Your task to perform on an android device: refresh tabs in the chrome app Image 0: 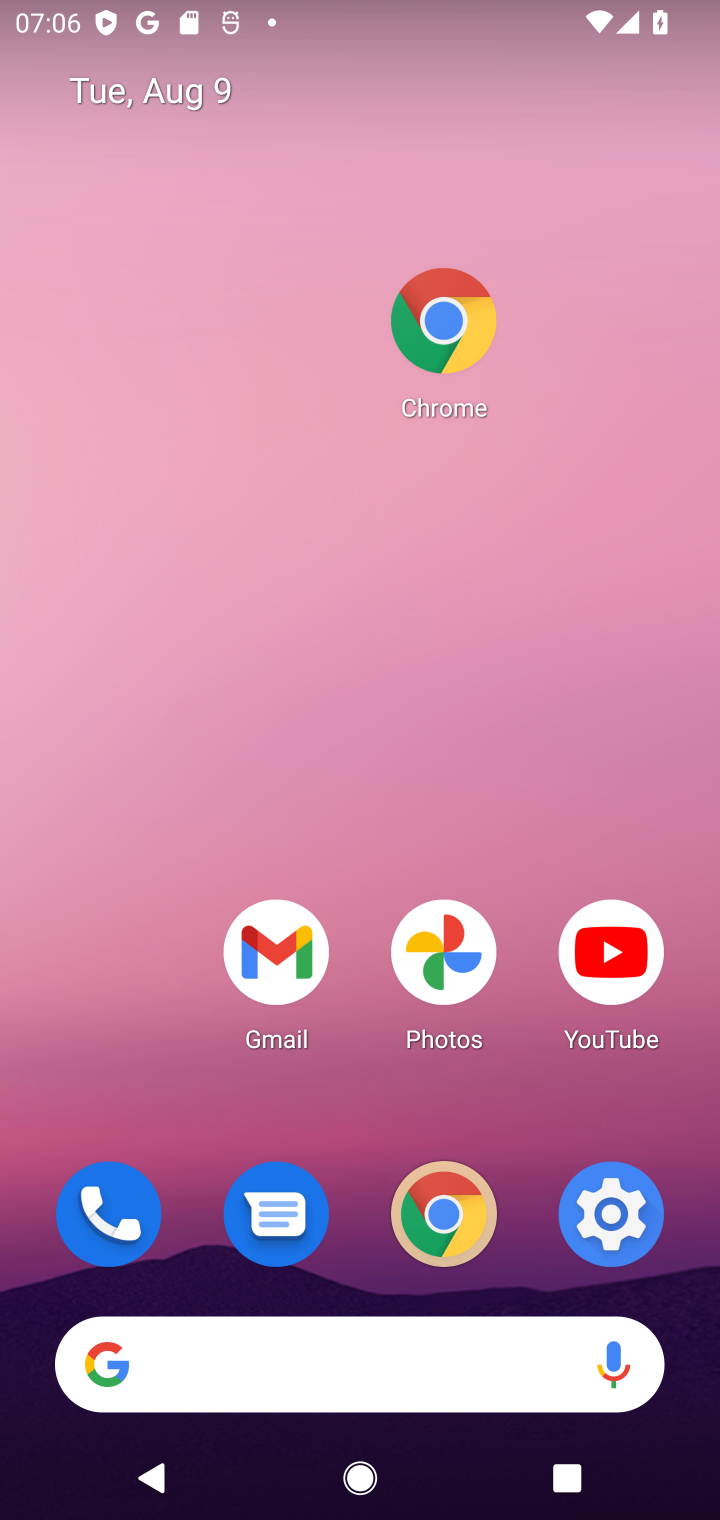
Step 0: press home button
Your task to perform on an android device: refresh tabs in the chrome app Image 1: 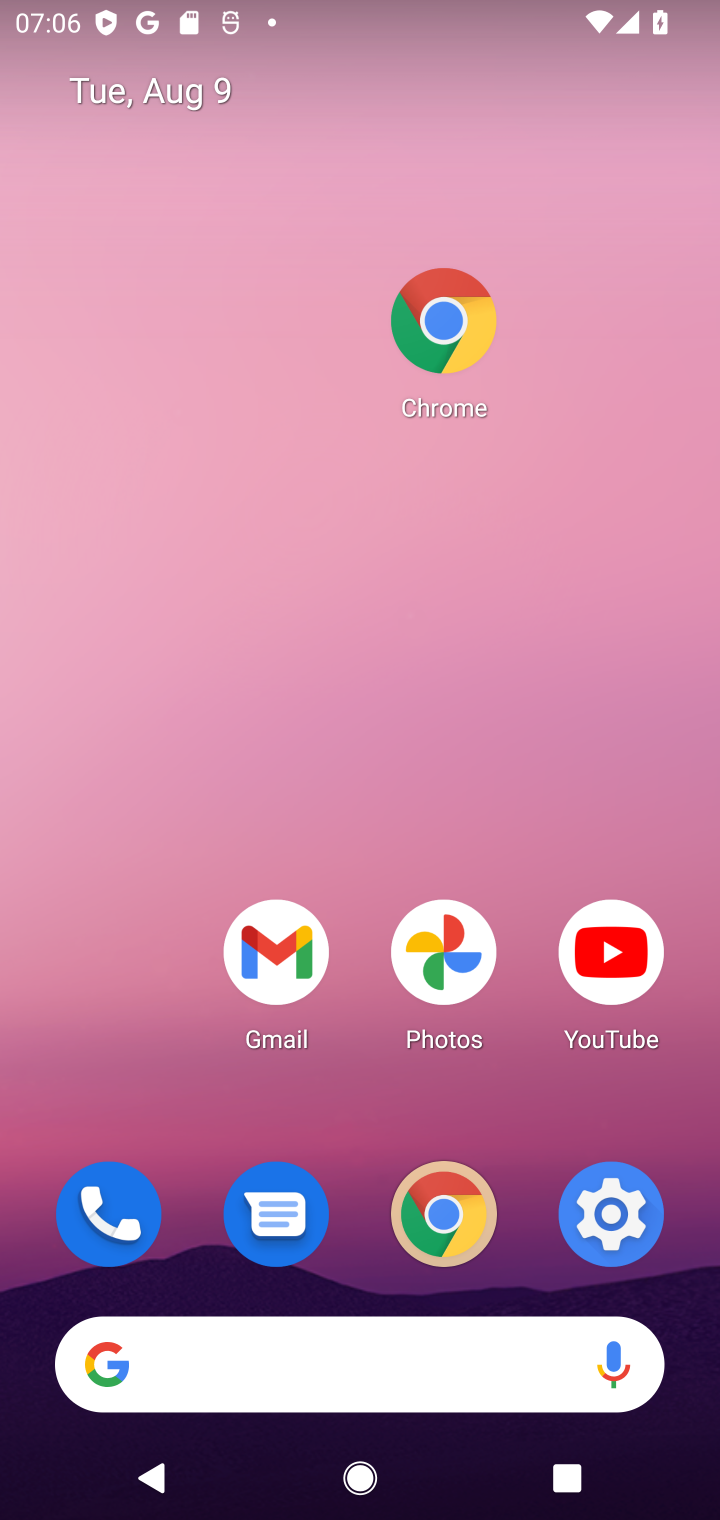
Step 1: drag from (466, 1281) to (412, 475)
Your task to perform on an android device: refresh tabs in the chrome app Image 2: 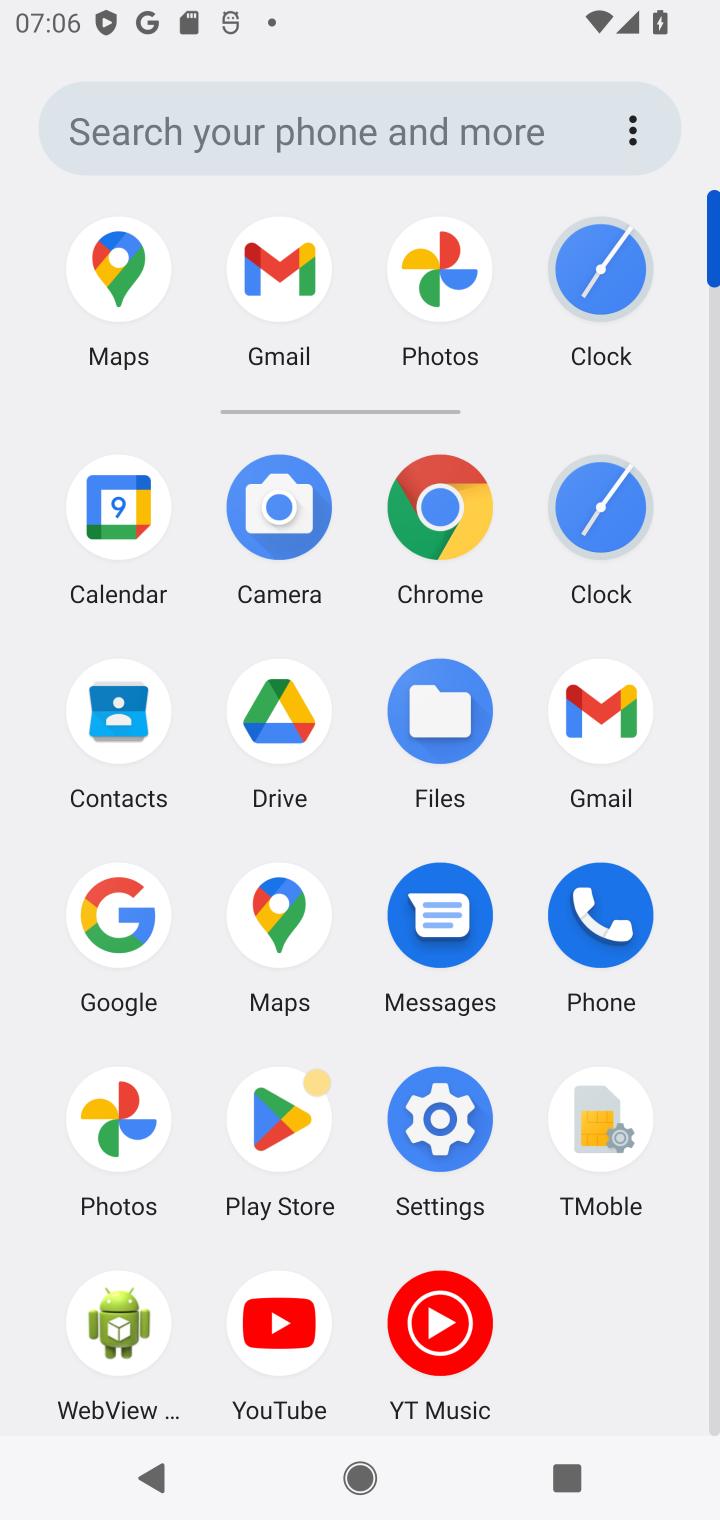
Step 2: click (419, 529)
Your task to perform on an android device: refresh tabs in the chrome app Image 3: 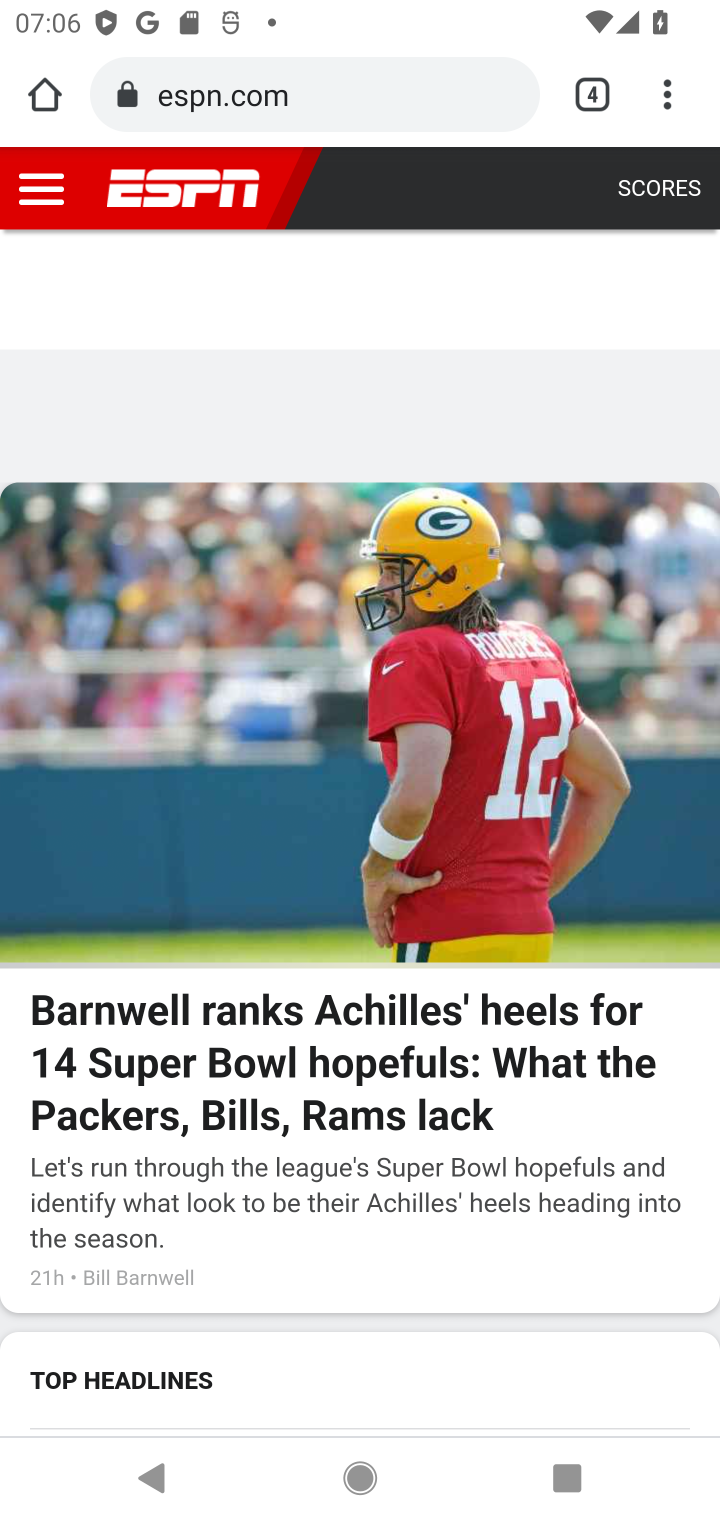
Step 3: click (669, 111)
Your task to perform on an android device: refresh tabs in the chrome app Image 4: 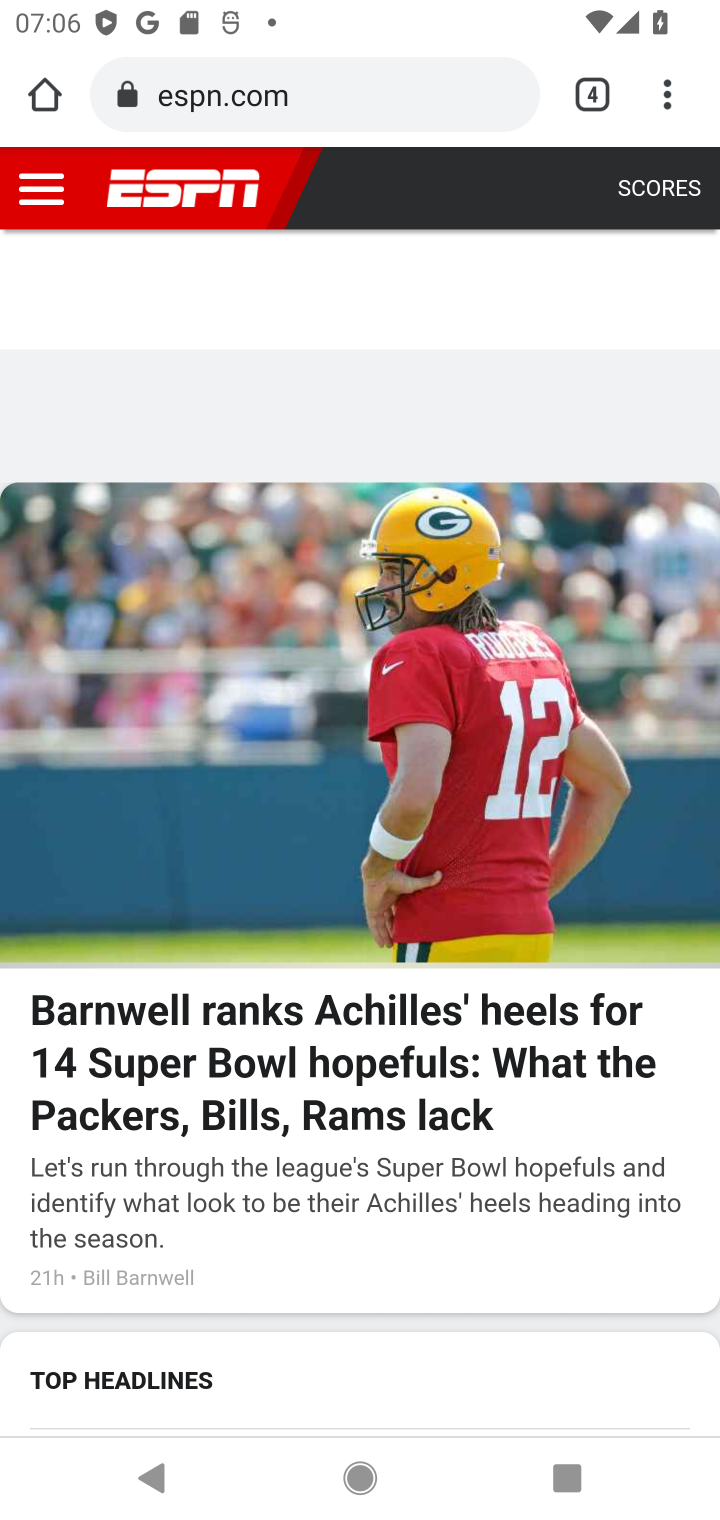
Step 4: click (662, 95)
Your task to perform on an android device: refresh tabs in the chrome app Image 5: 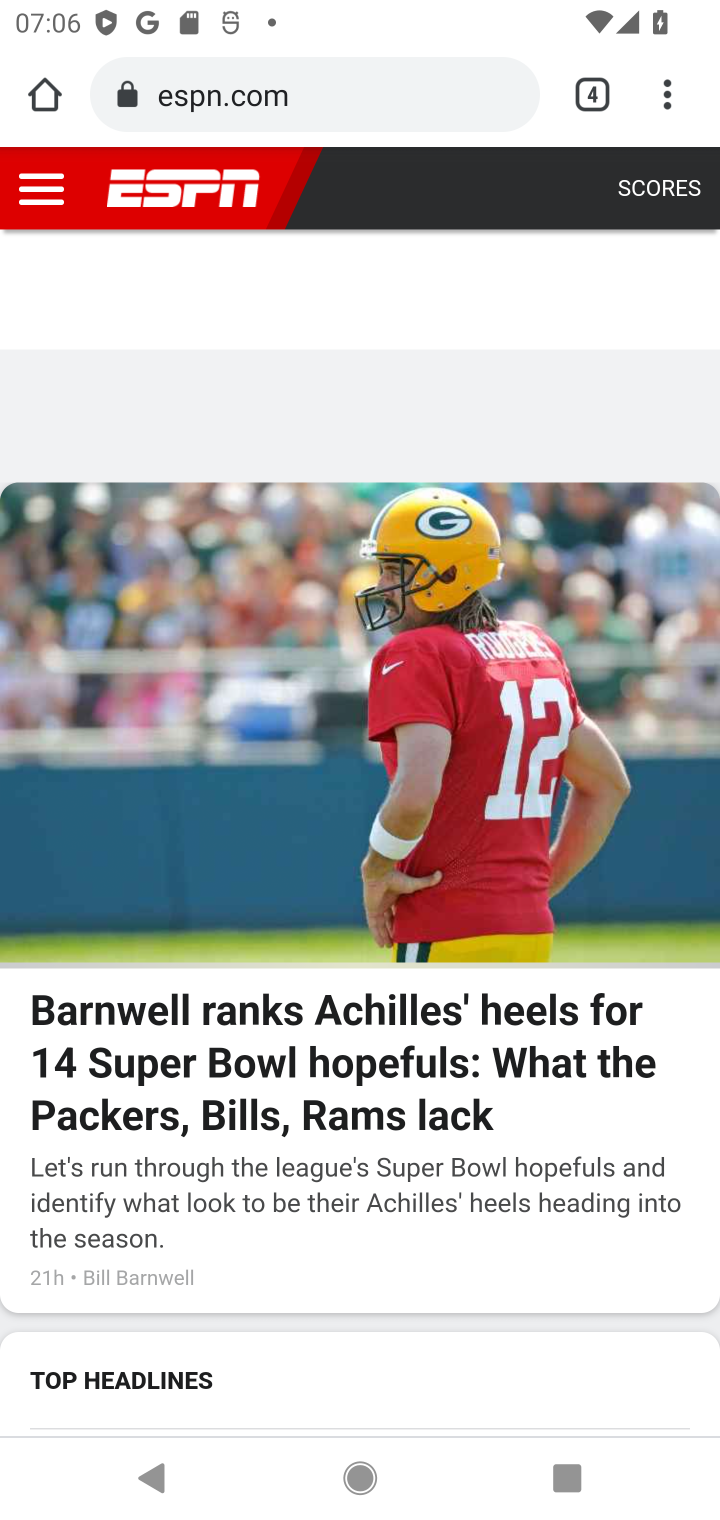
Step 5: click (644, 107)
Your task to perform on an android device: refresh tabs in the chrome app Image 6: 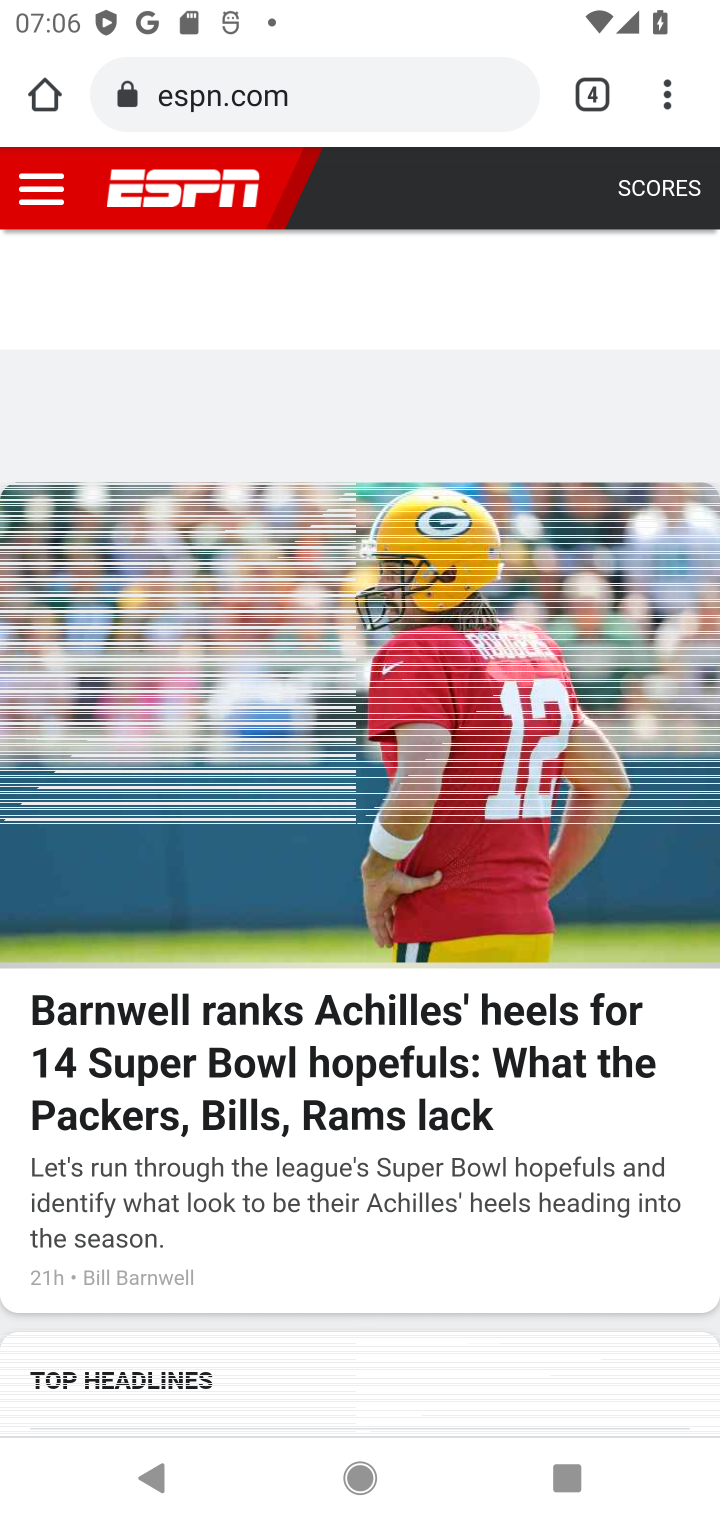
Step 6: click (654, 123)
Your task to perform on an android device: refresh tabs in the chrome app Image 7: 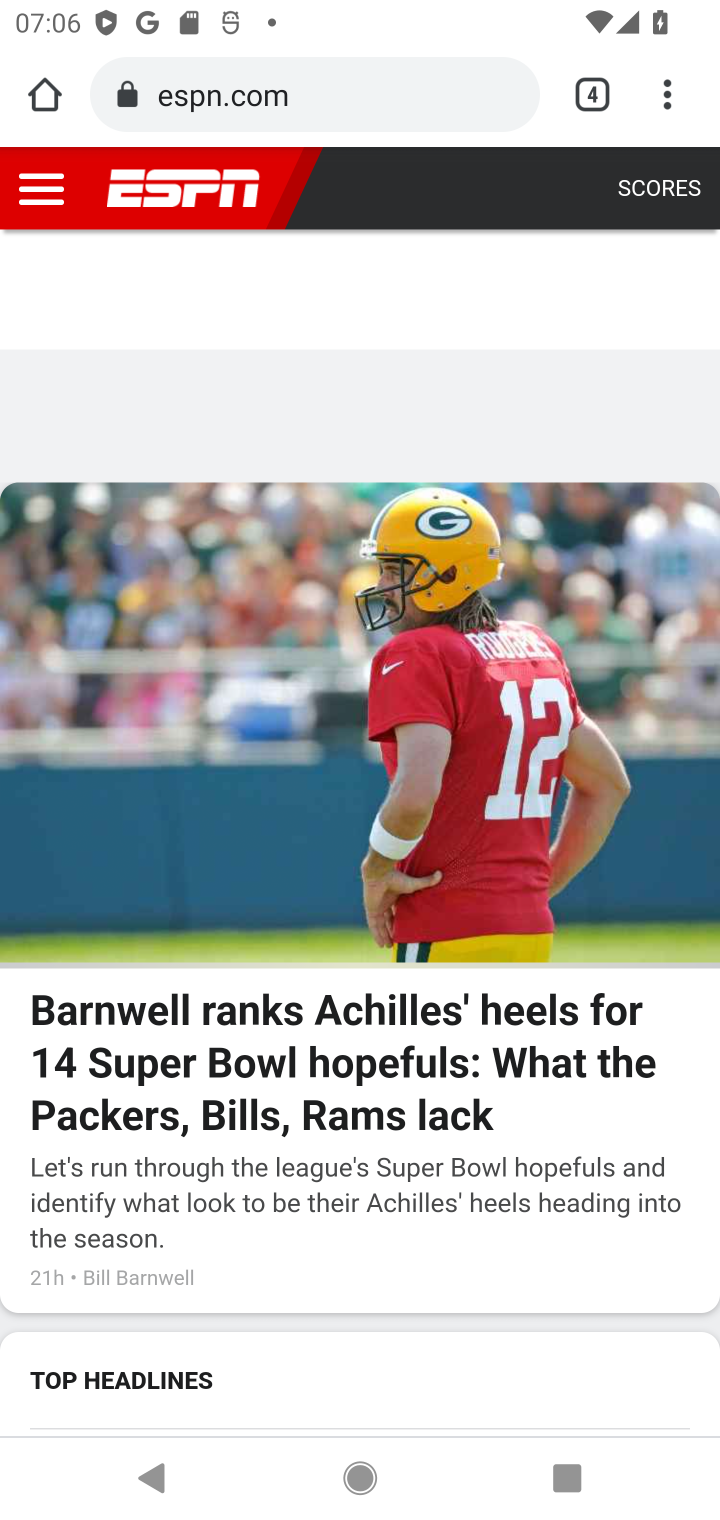
Step 7: click (673, 127)
Your task to perform on an android device: refresh tabs in the chrome app Image 8: 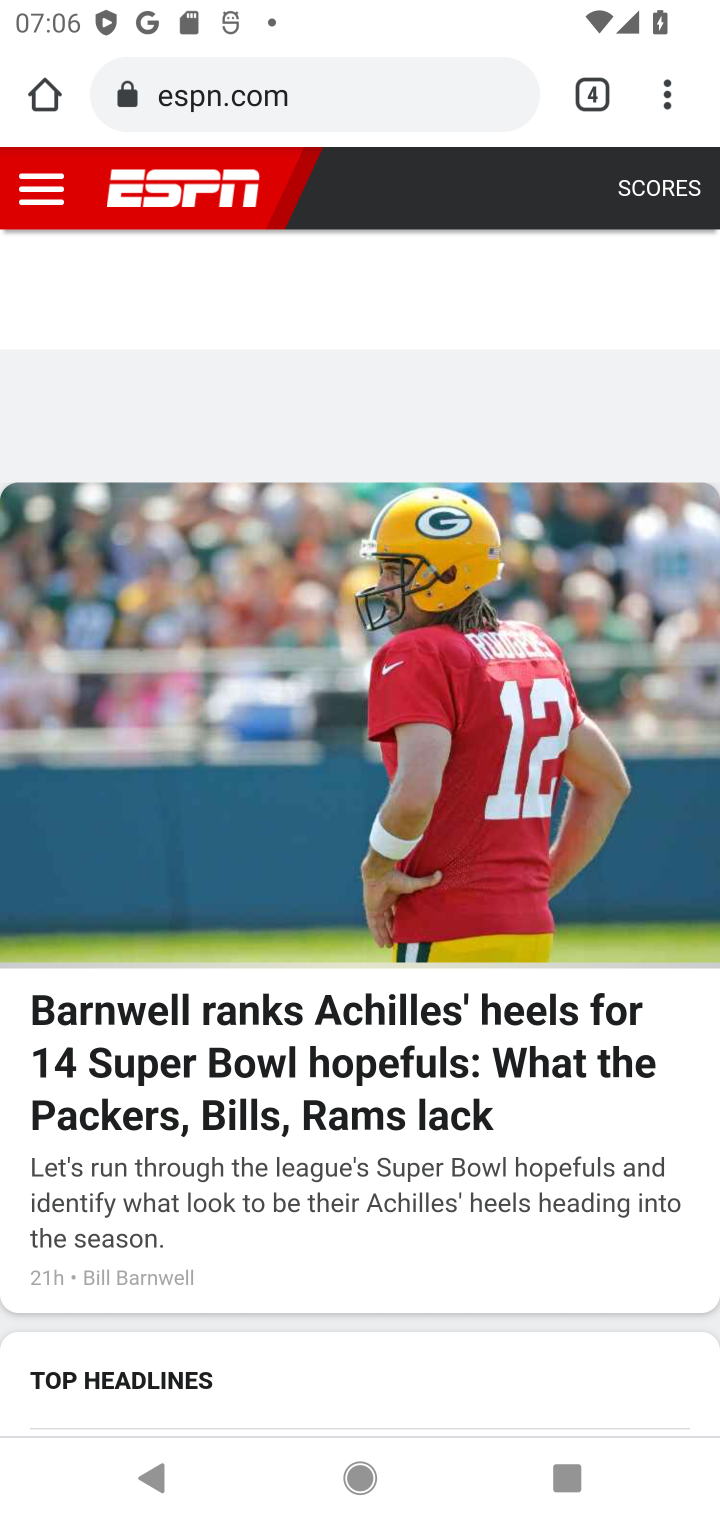
Step 8: click (648, 111)
Your task to perform on an android device: refresh tabs in the chrome app Image 9: 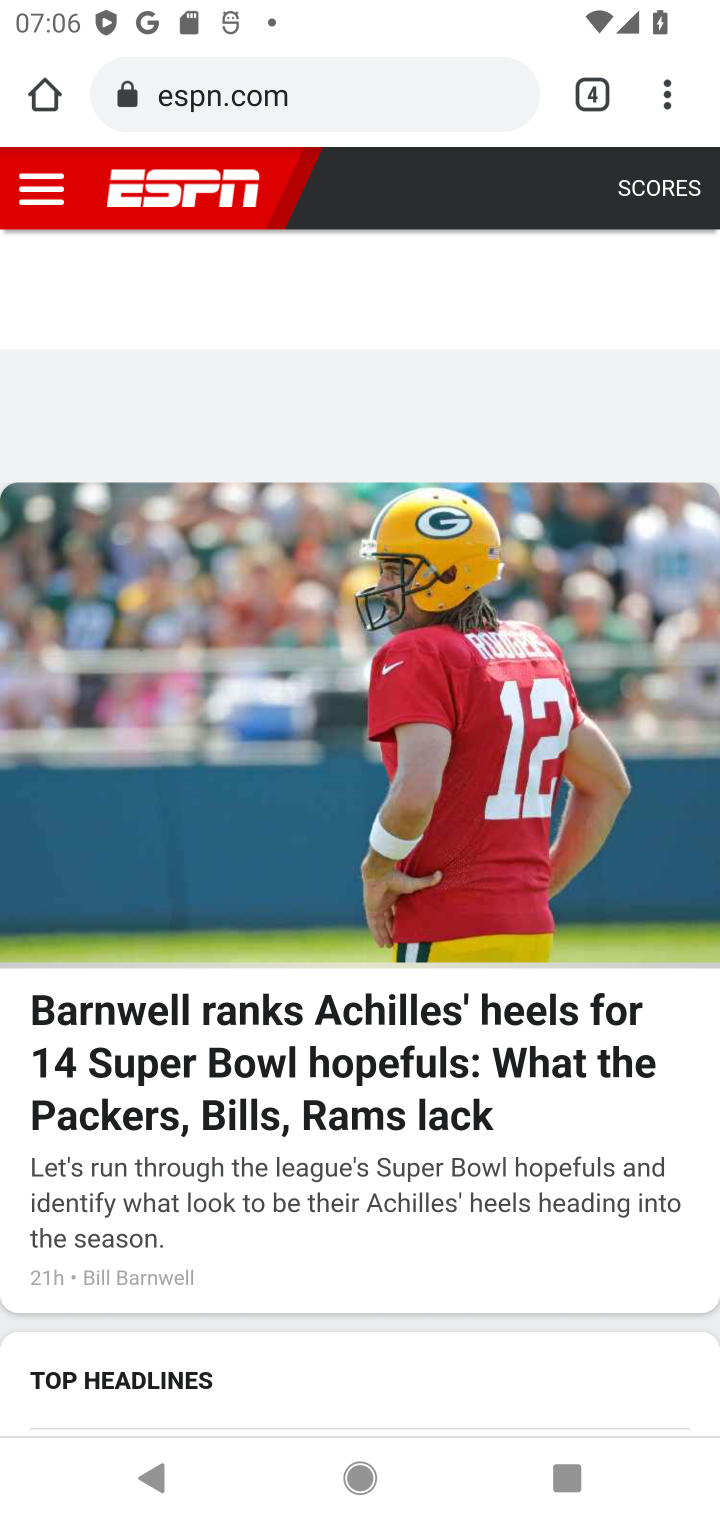
Step 9: task complete